Your task to perform on an android device: Search for seafood restaurants on Google Maps Image 0: 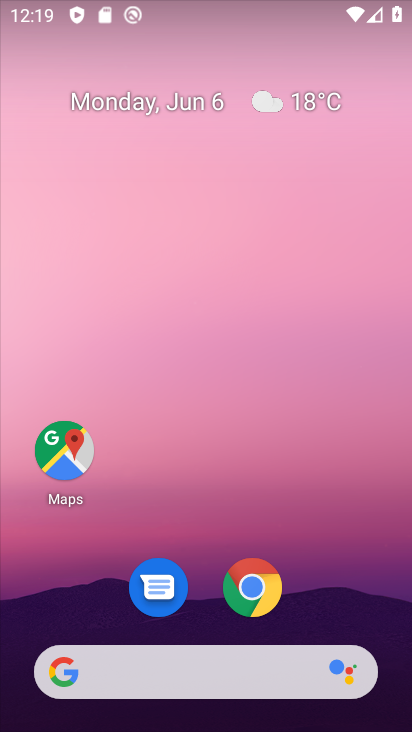
Step 0: drag from (329, 573) to (354, 89)
Your task to perform on an android device: Search for seafood restaurants on Google Maps Image 1: 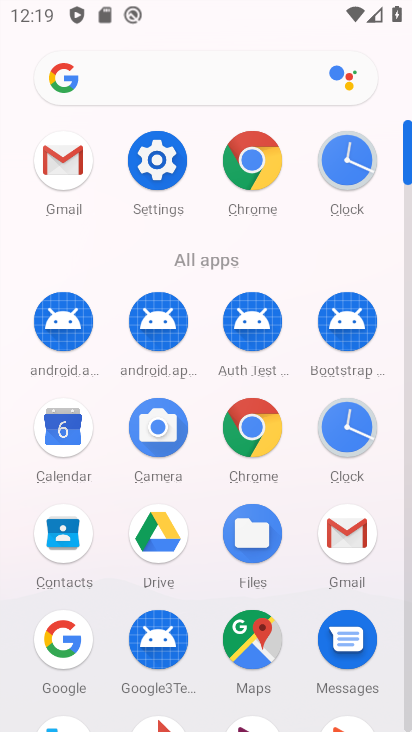
Step 1: click (270, 643)
Your task to perform on an android device: Search for seafood restaurants on Google Maps Image 2: 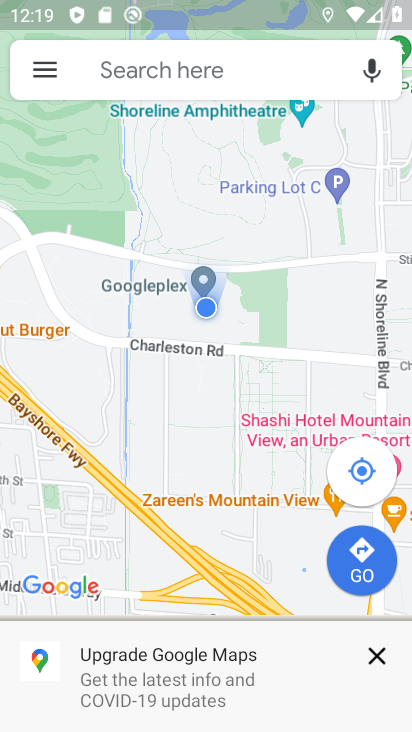
Step 2: click (142, 73)
Your task to perform on an android device: Search for seafood restaurants on Google Maps Image 3: 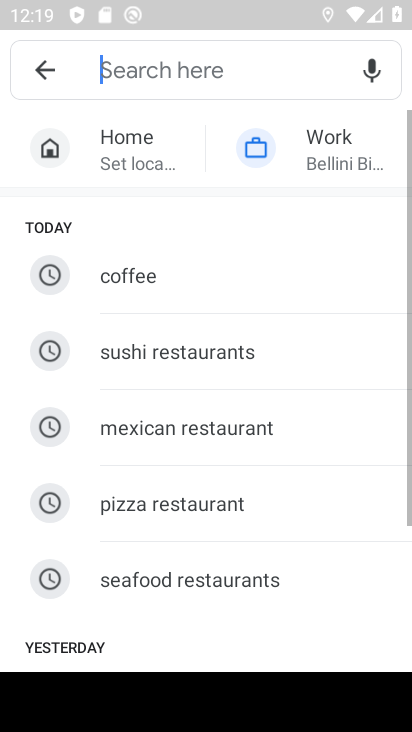
Step 3: click (132, 586)
Your task to perform on an android device: Search for seafood restaurants on Google Maps Image 4: 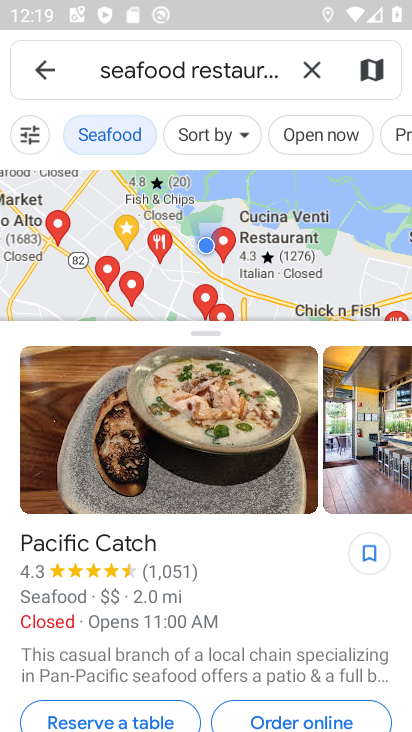
Step 4: task complete